Your task to perform on an android device: Empty the shopping cart on bestbuy. Add "asus rog" to the cart on bestbuy Image 0: 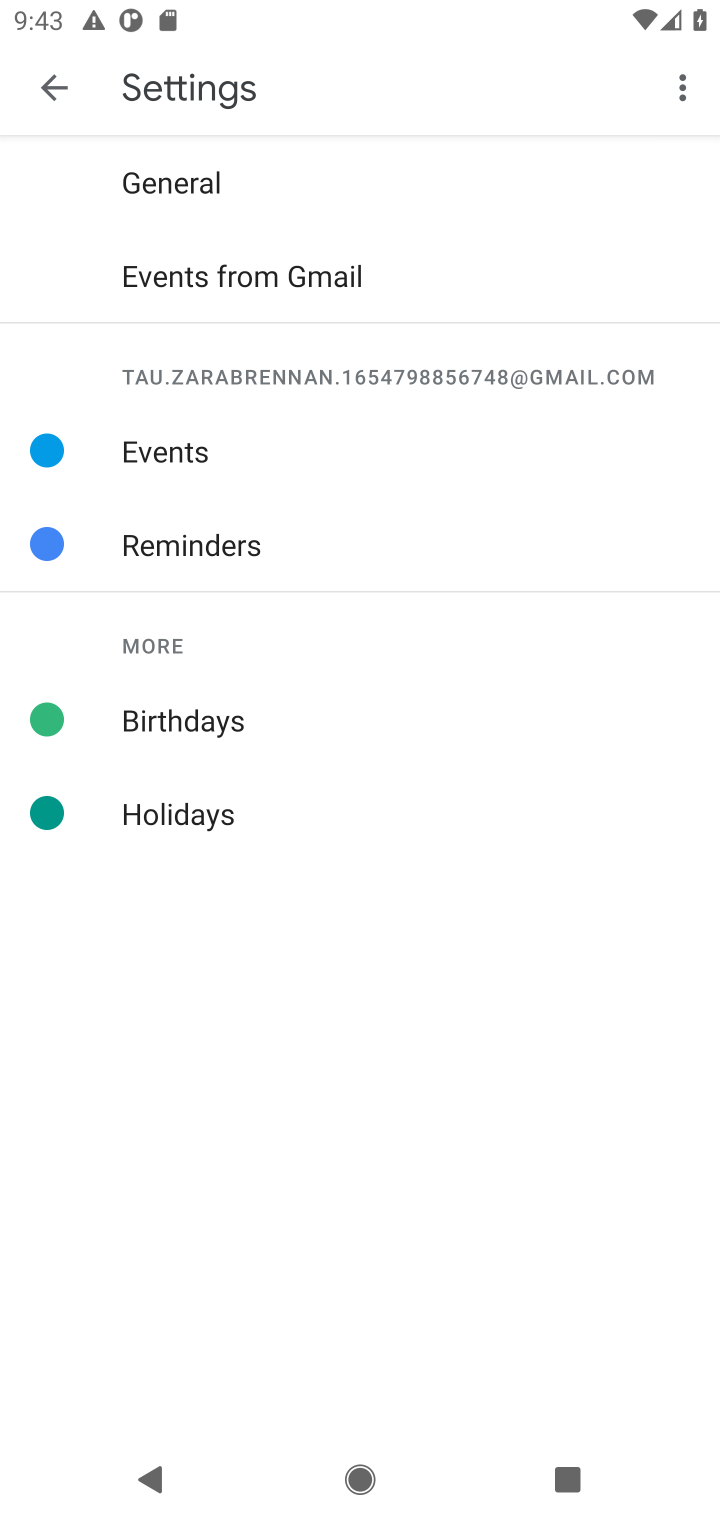
Step 0: press home button
Your task to perform on an android device: Empty the shopping cart on bestbuy. Add "asus rog" to the cart on bestbuy Image 1: 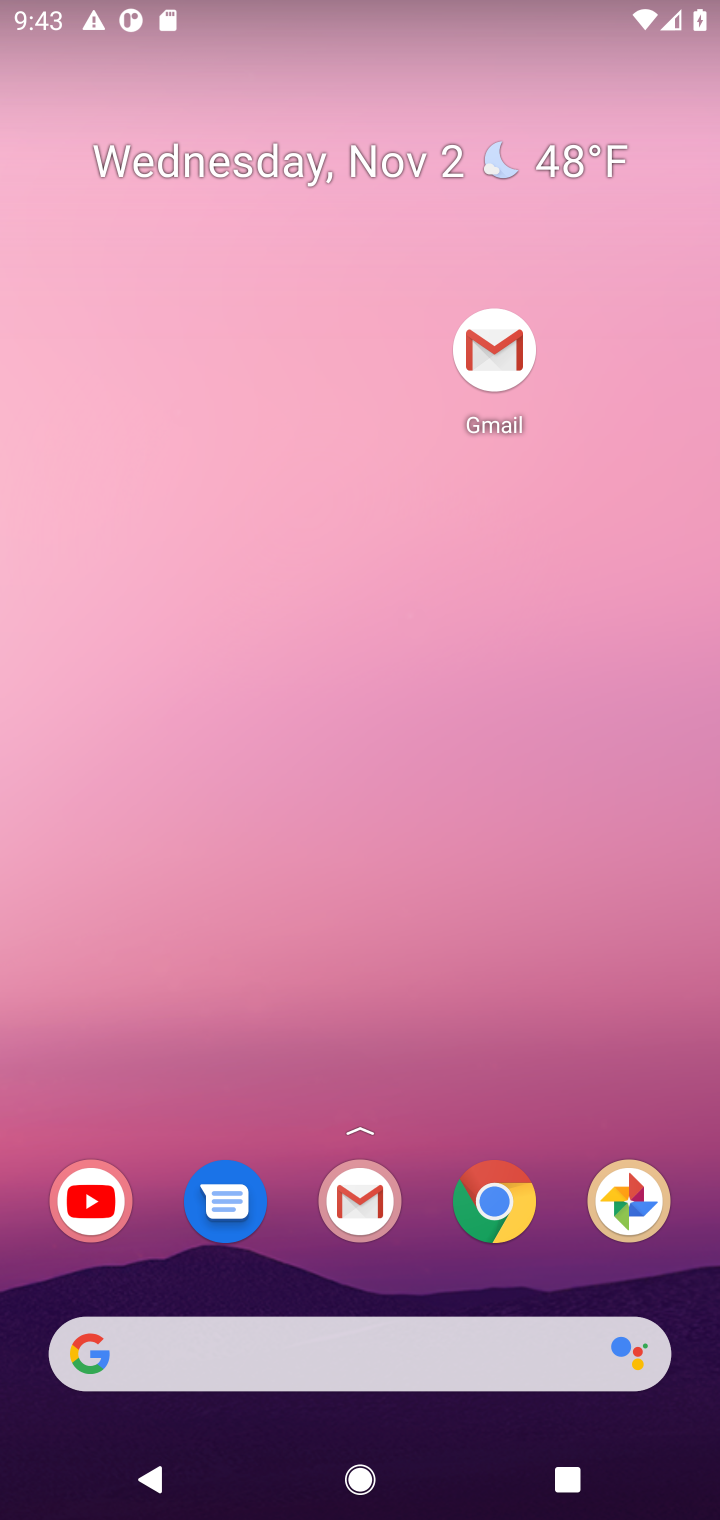
Step 1: drag from (419, 1290) to (256, 356)
Your task to perform on an android device: Empty the shopping cart on bestbuy. Add "asus rog" to the cart on bestbuy Image 2: 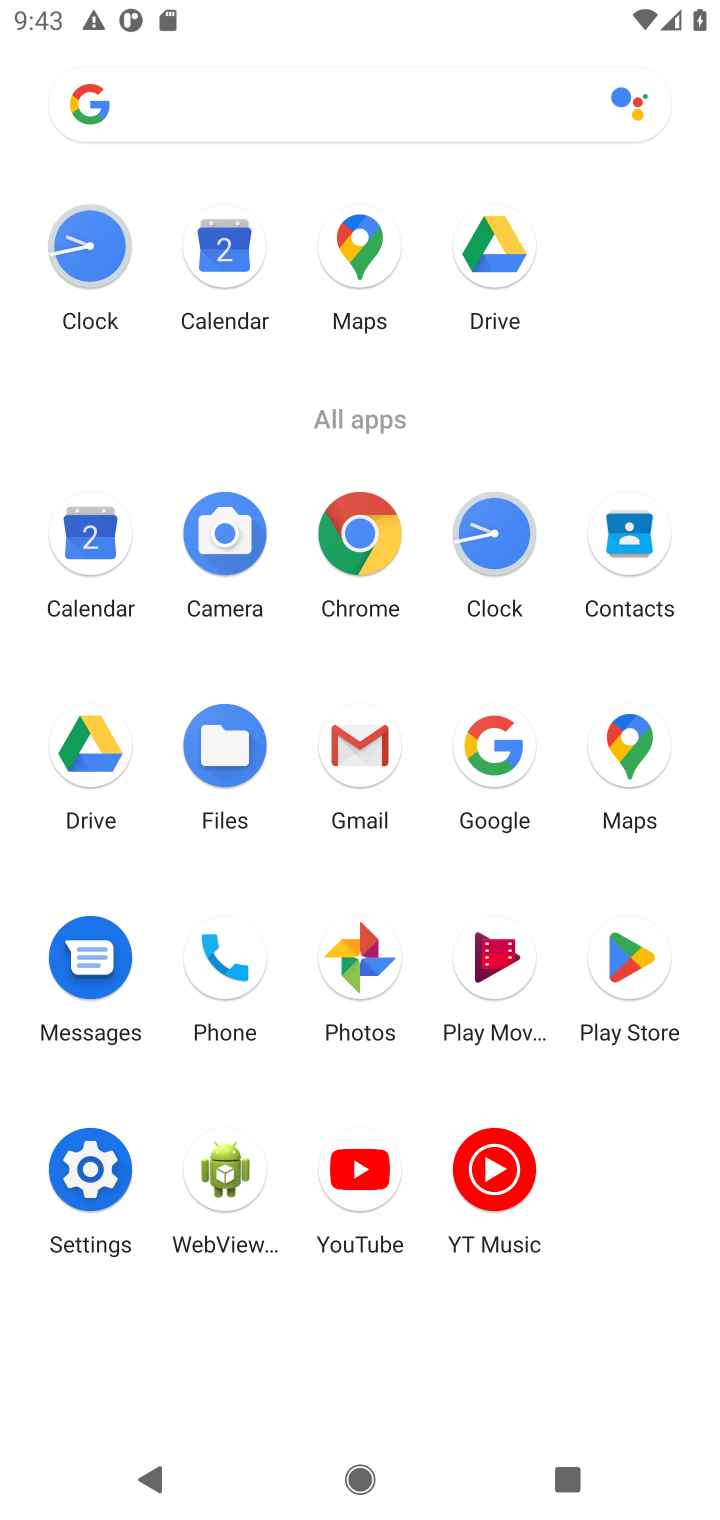
Step 2: click (366, 537)
Your task to perform on an android device: Empty the shopping cart on bestbuy. Add "asus rog" to the cart on bestbuy Image 3: 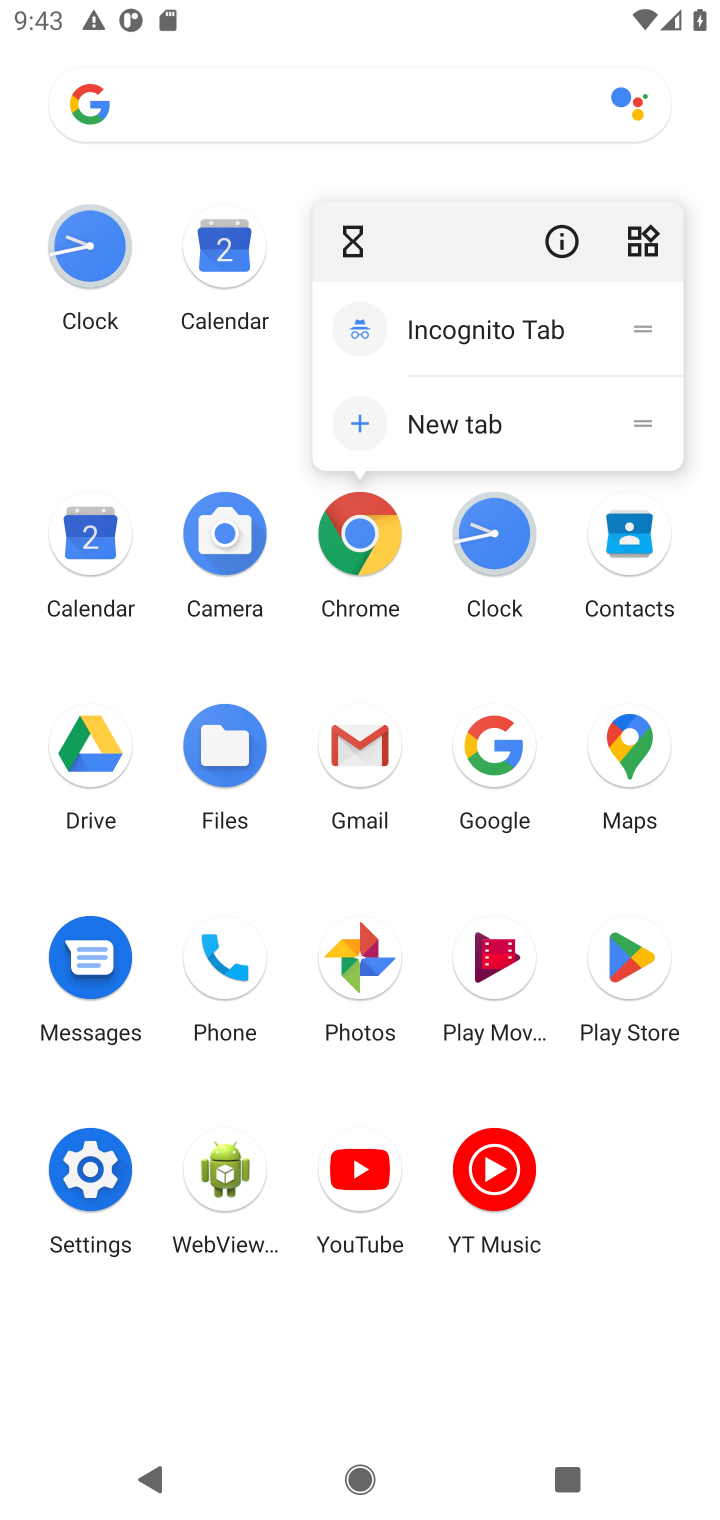
Step 3: click (350, 535)
Your task to perform on an android device: Empty the shopping cart on bestbuy. Add "asus rog" to the cart on bestbuy Image 4: 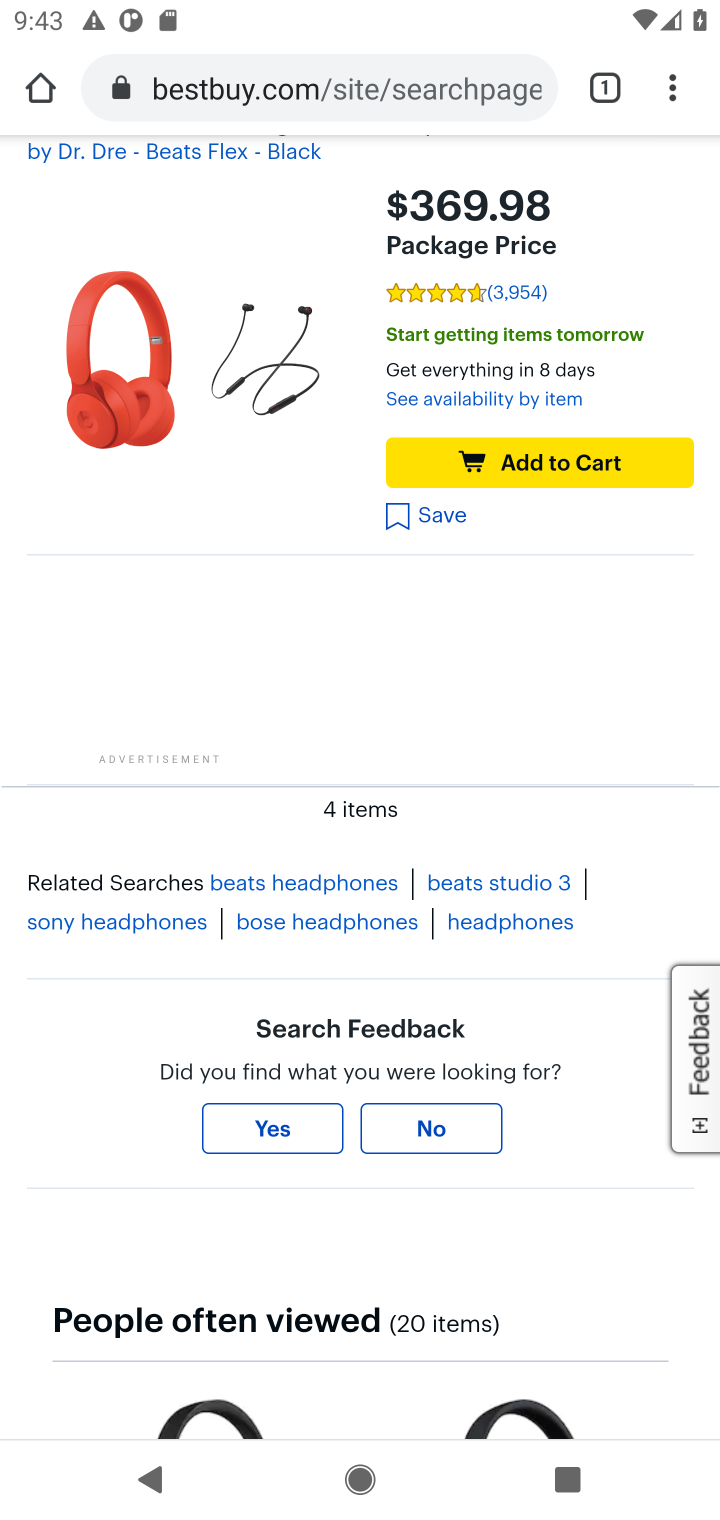
Step 4: click (355, 99)
Your task to perform on an android device: Empty the shopping cart on bestbuy. Add "asus rog" to the cart on bestbuy Image 5: 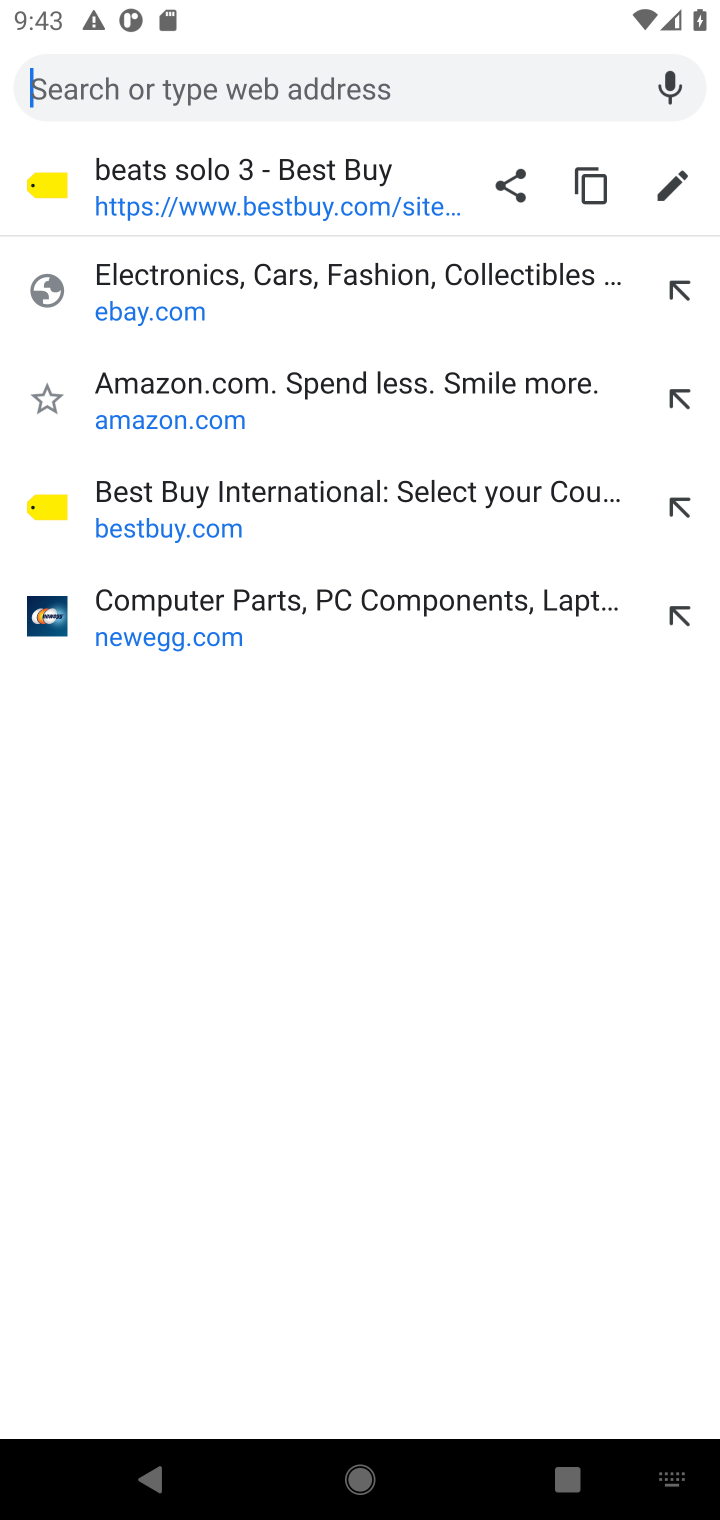
Step 5: type "bestbuy.com"
Your task to perform on an android device: Empty the shopping cart on bestbuy. Add "asus rog" to the cart on bestbuy Image 6: 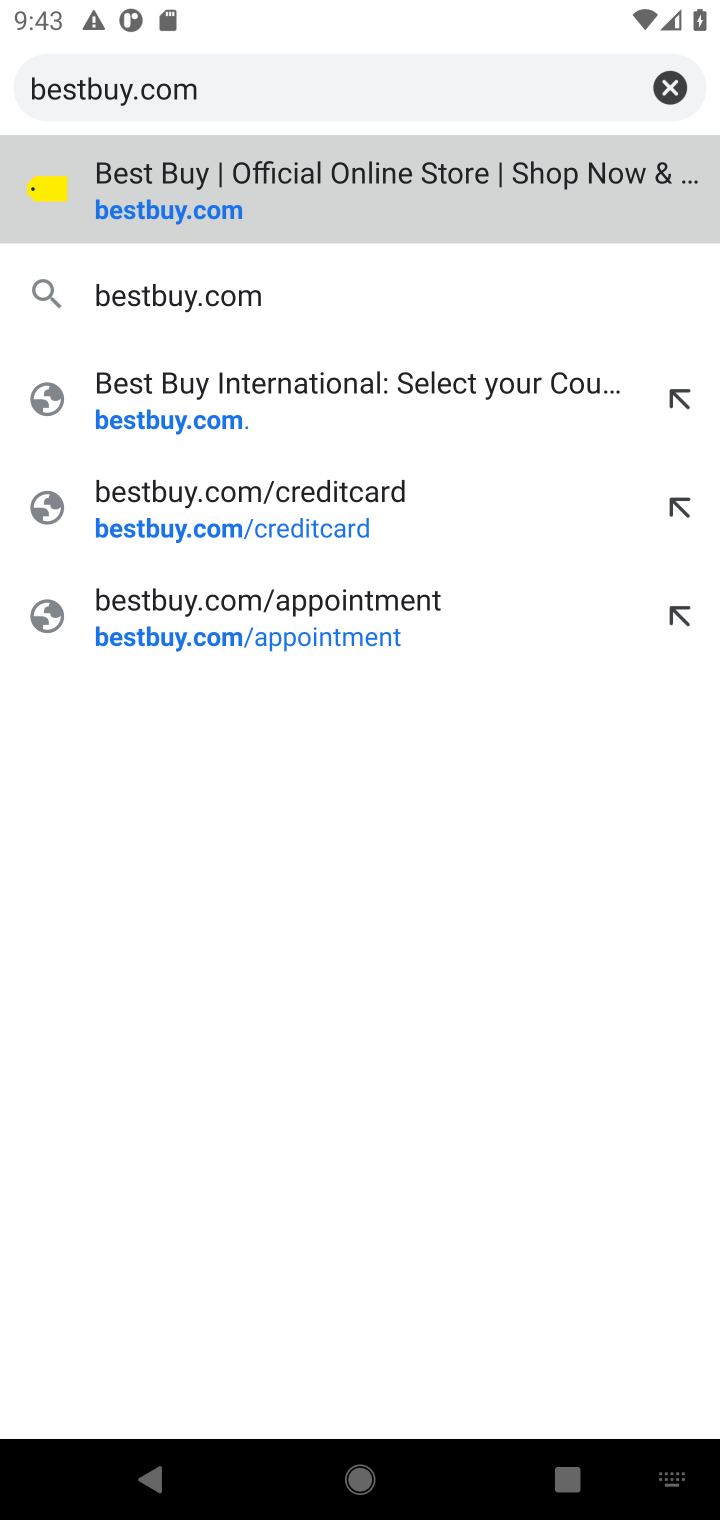
Step 6: press enter
Your task to perform on an android device: Empty the shopping cart on bestbuy. Add "asus rog" to the cart on bestbuy Image 7: 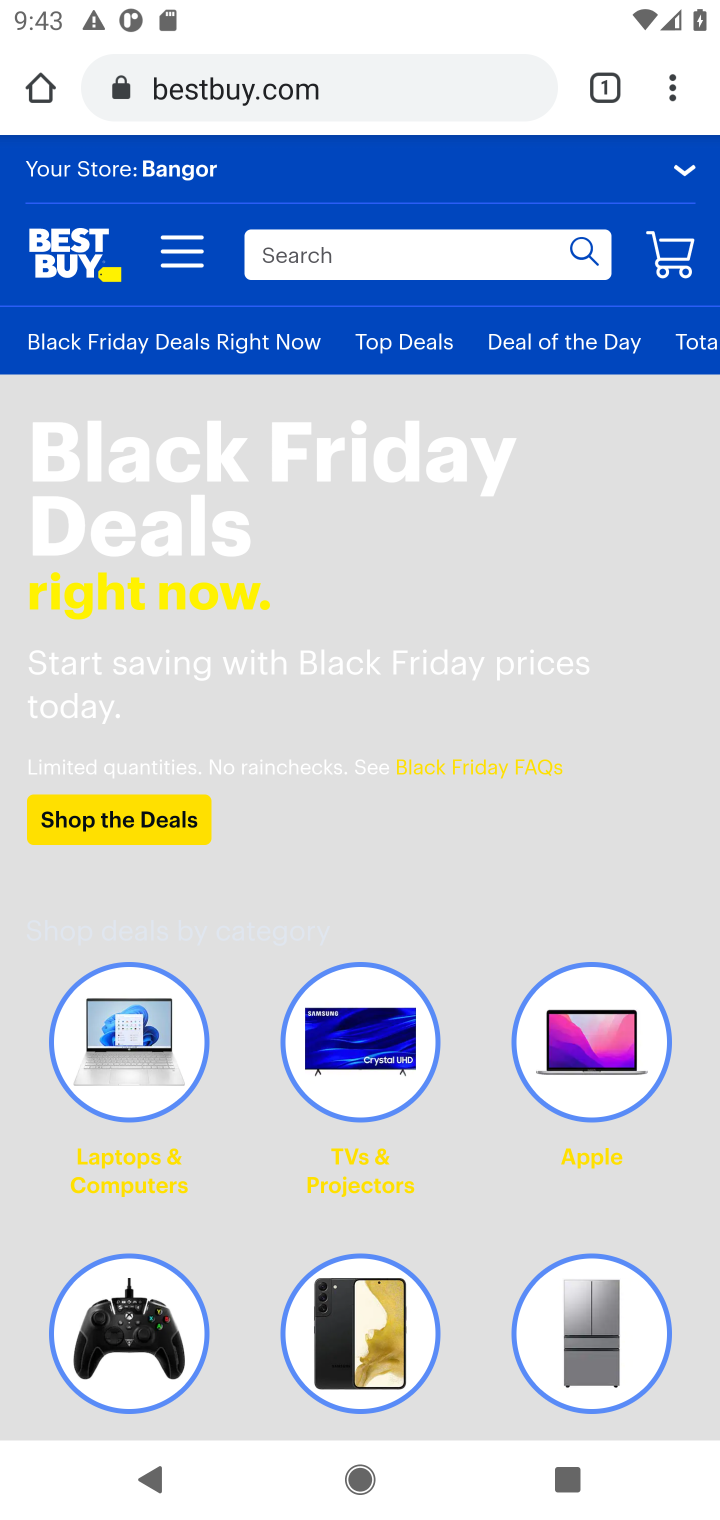
Step 7: click (678, 235)
Your task to perform on an android device: Empty the shopping cart on bestbuy. Add "asus rog" to the cart on bestbuy Image 8: 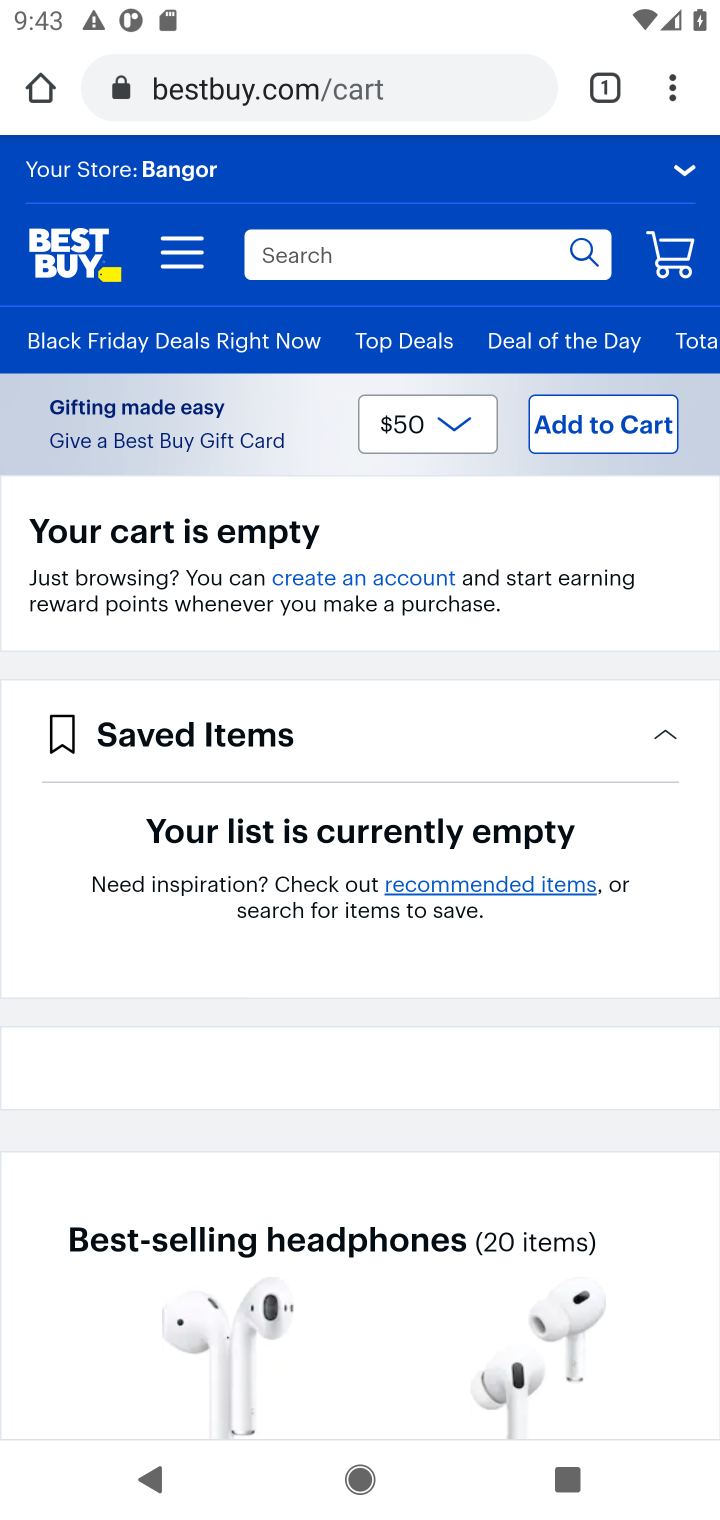
Step 8: click (474, 279)
Your task to perform on an android device: Empty the shopping cart on bestbuy. Add "asus rog" to the cart on bestbuy Image 9: 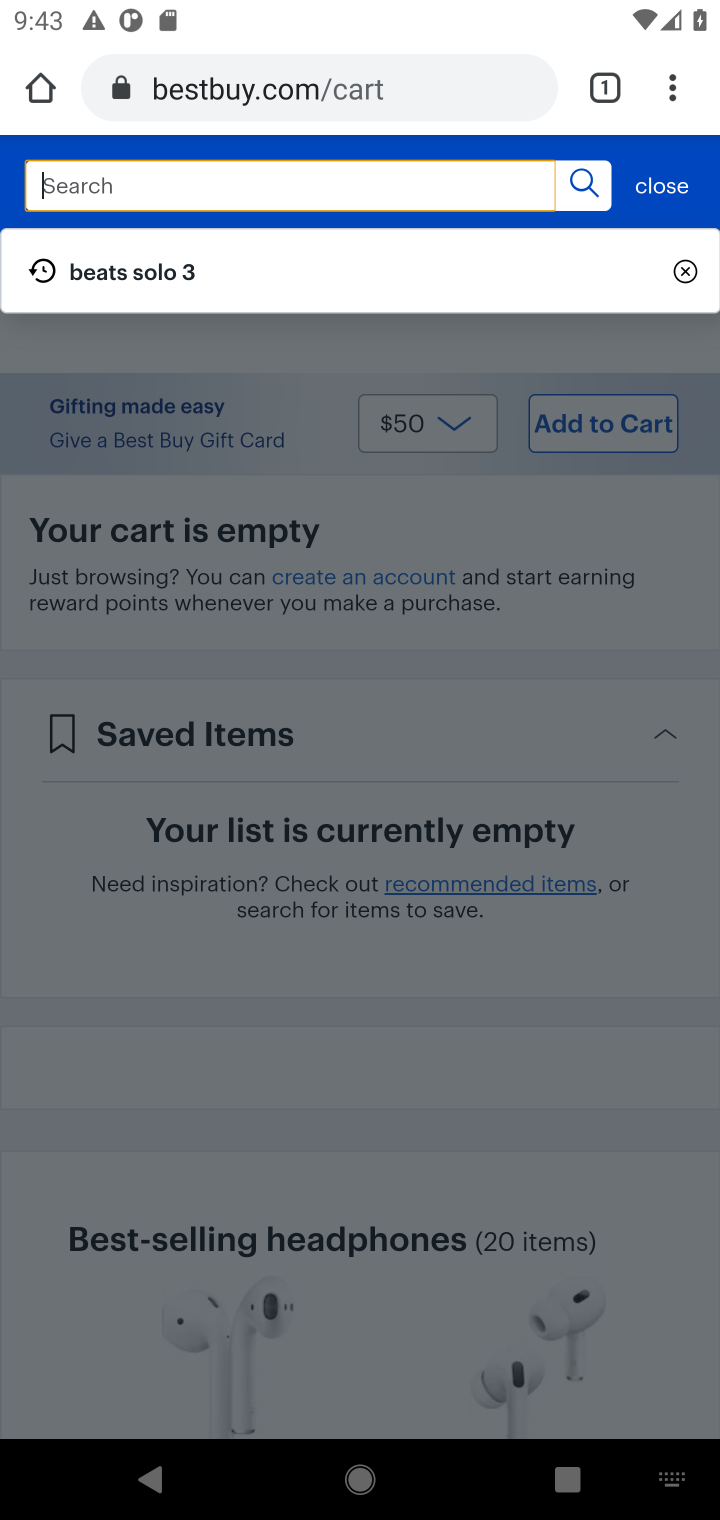
Step 9: type "asus rog"
Your task to perform on an android device: Empty the shopping cart on bestbuy. Add "asus rog" to the cart on bestbuy Image 10: 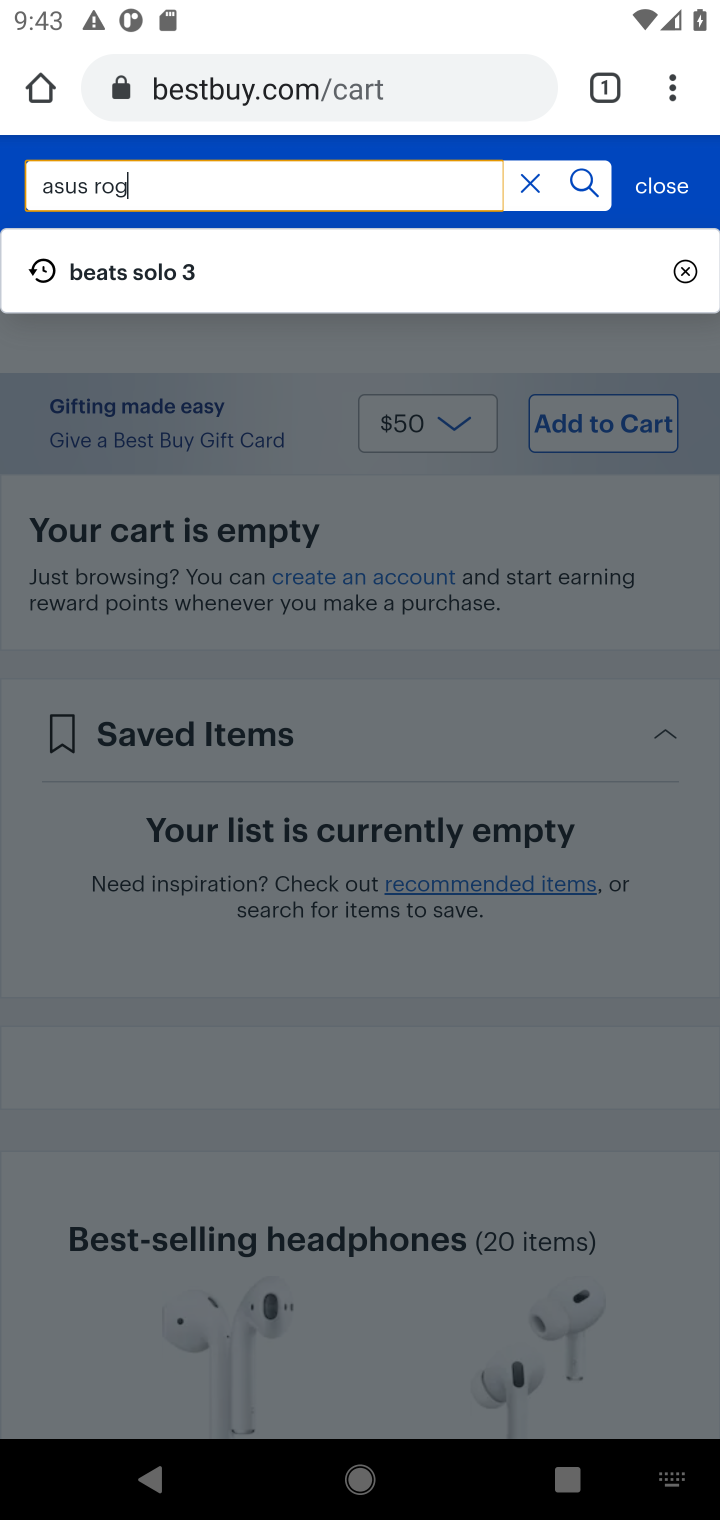
Step 10: press enter
Your task to perform on an android device: Empty the shopping cart on bestbuy. Add "asus rog" to the cart on bestbuy Image 11: 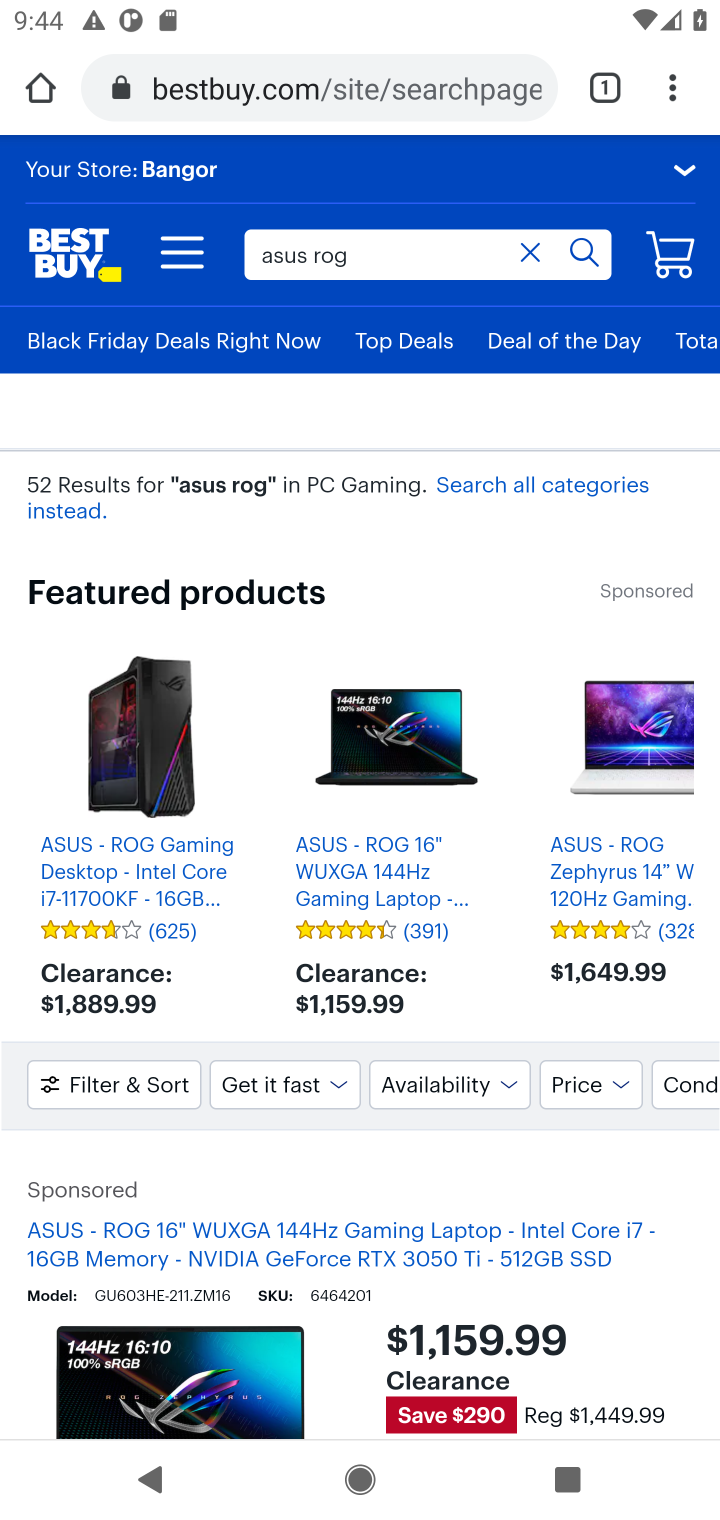
Step 11: drag from (441, 1270) to (523, 222)
Your task to perform on an android device: Empty the shopping cart on bestbuy. Add "asus rog" to the cart on bestbuy Image 12: 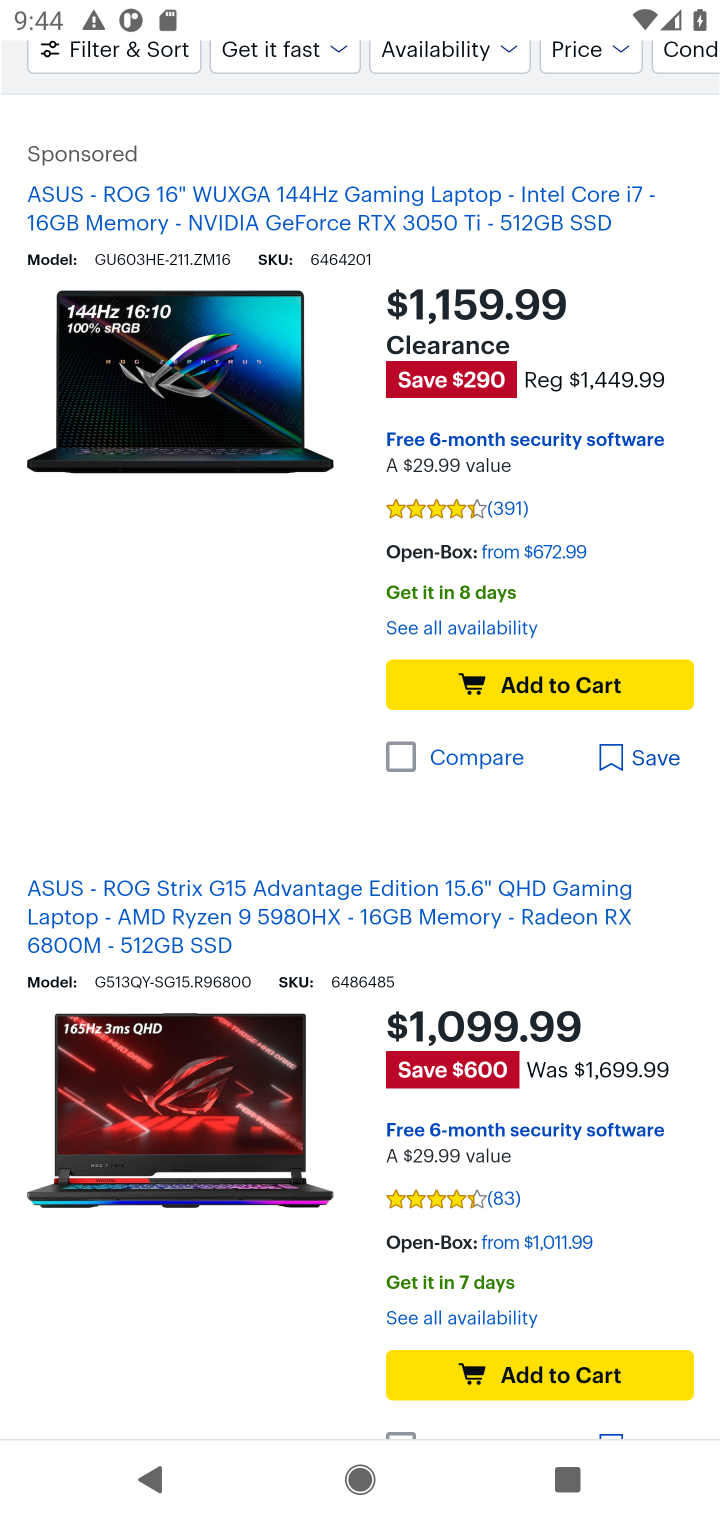
Step 12: click (177, 936)
Your task to perform on an android device: Empty the shopping cart on bestbuy. Add "asus rog" to the cart on bestbuy Image 13: 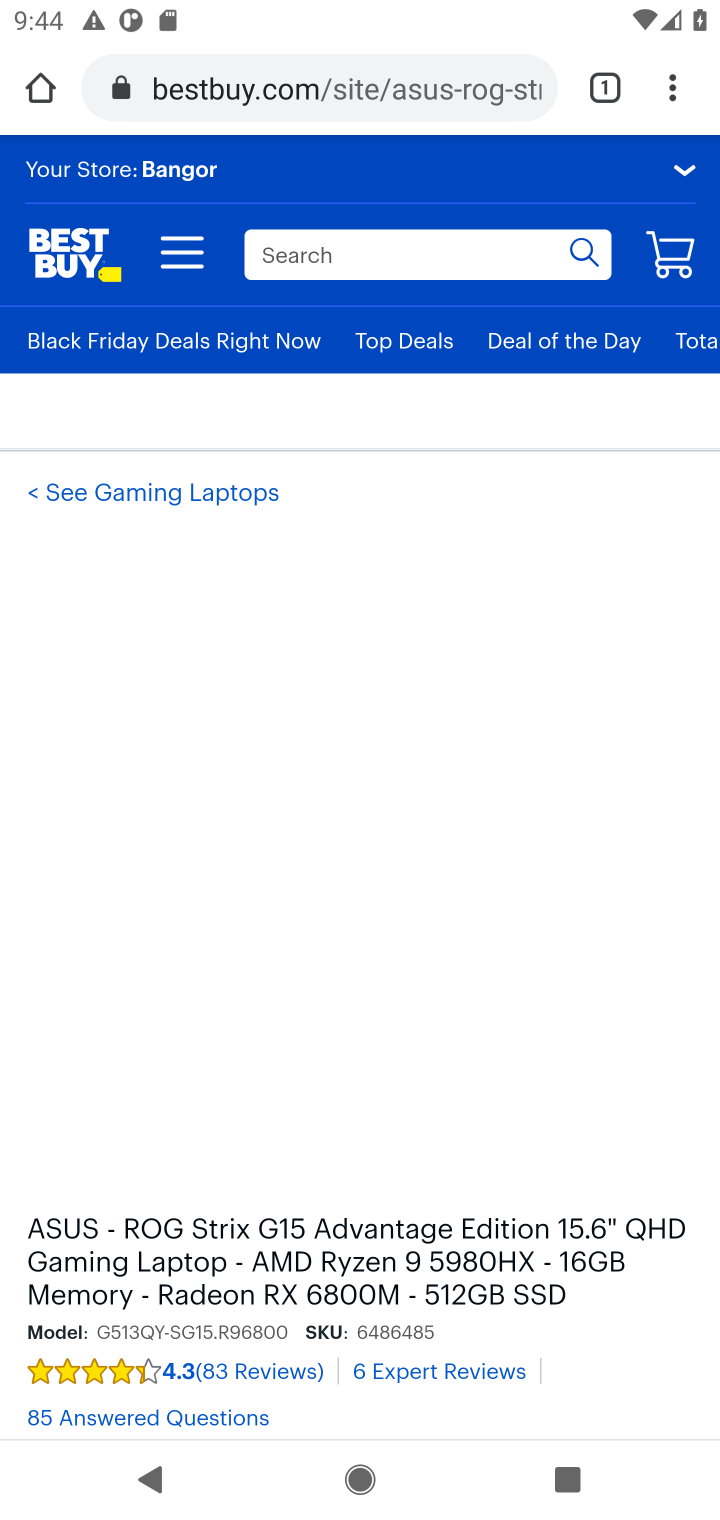
Step 13: drag from (412, 1222) to (513, 368)
Your task to perform on an android device: Empty the shopping cart on bestbuy. Add "asus rog" to the cart on bestbuy Image 14: 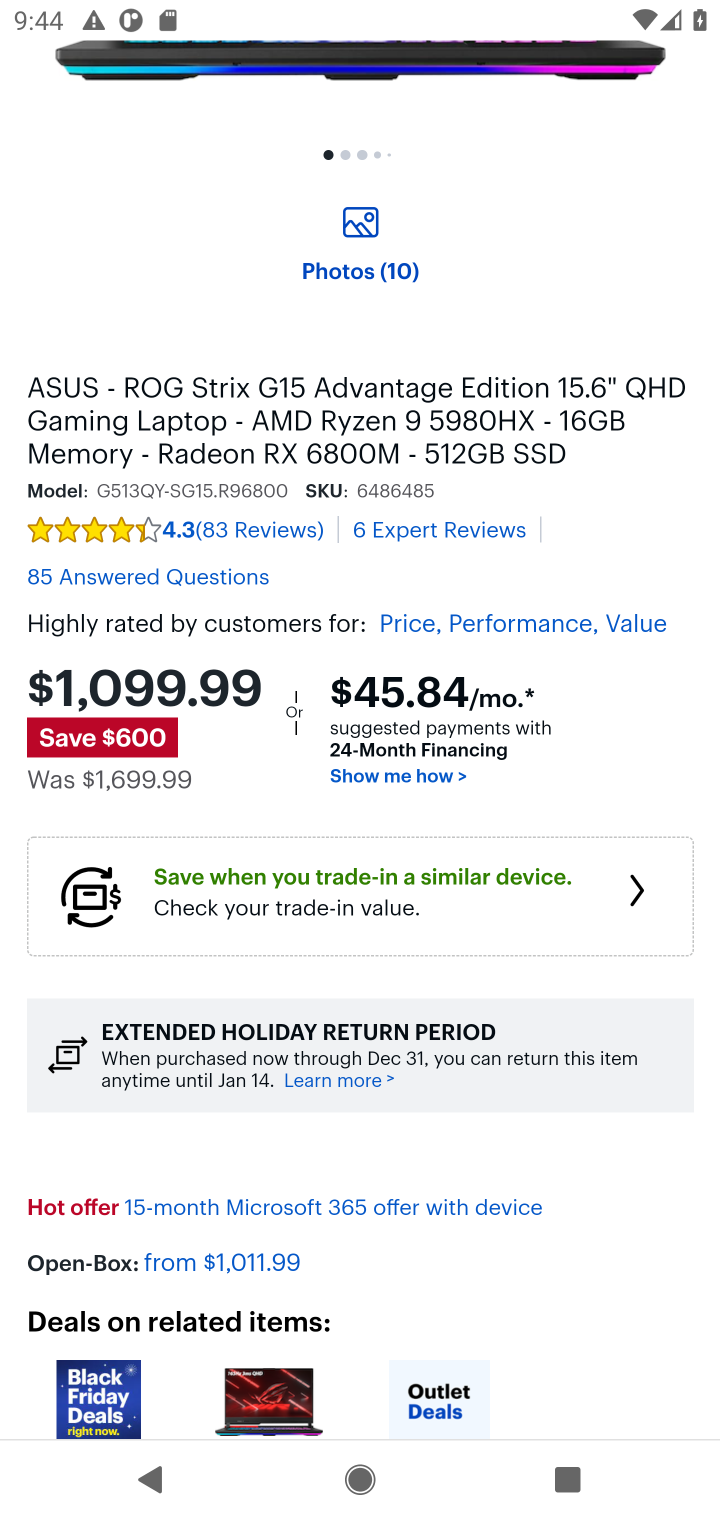
Step 14: drag from (366, 1170) to (445, 298)
Your task to perform on an android device: Empty the shopping cart on bestbuy. Add "asus rog" to the cart on bestbuy Image 15: 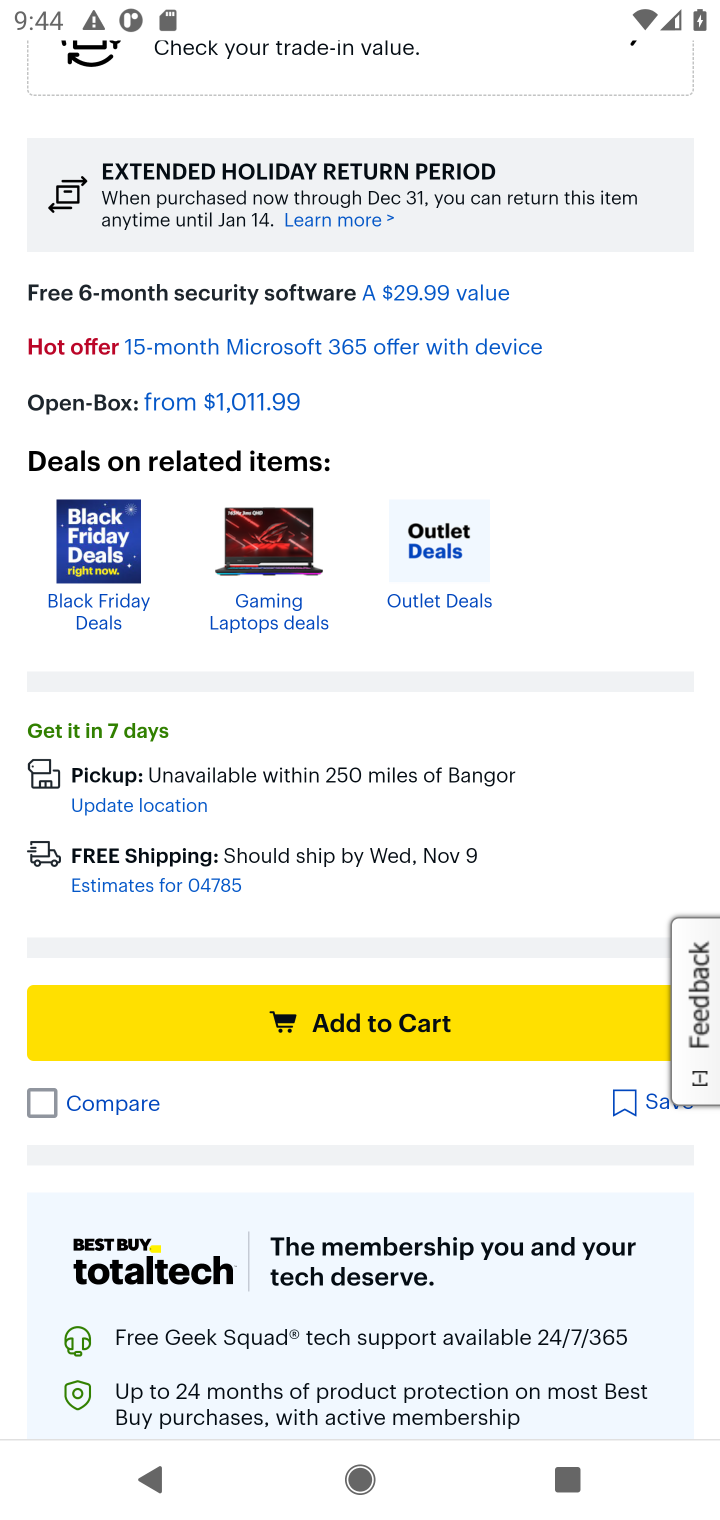
Step 15: click (449, 1016)
Your task to perform on an android device: Empty the shopping cart on bestbuy. Add "asus rog" to the cart on bestbuy Image 16: 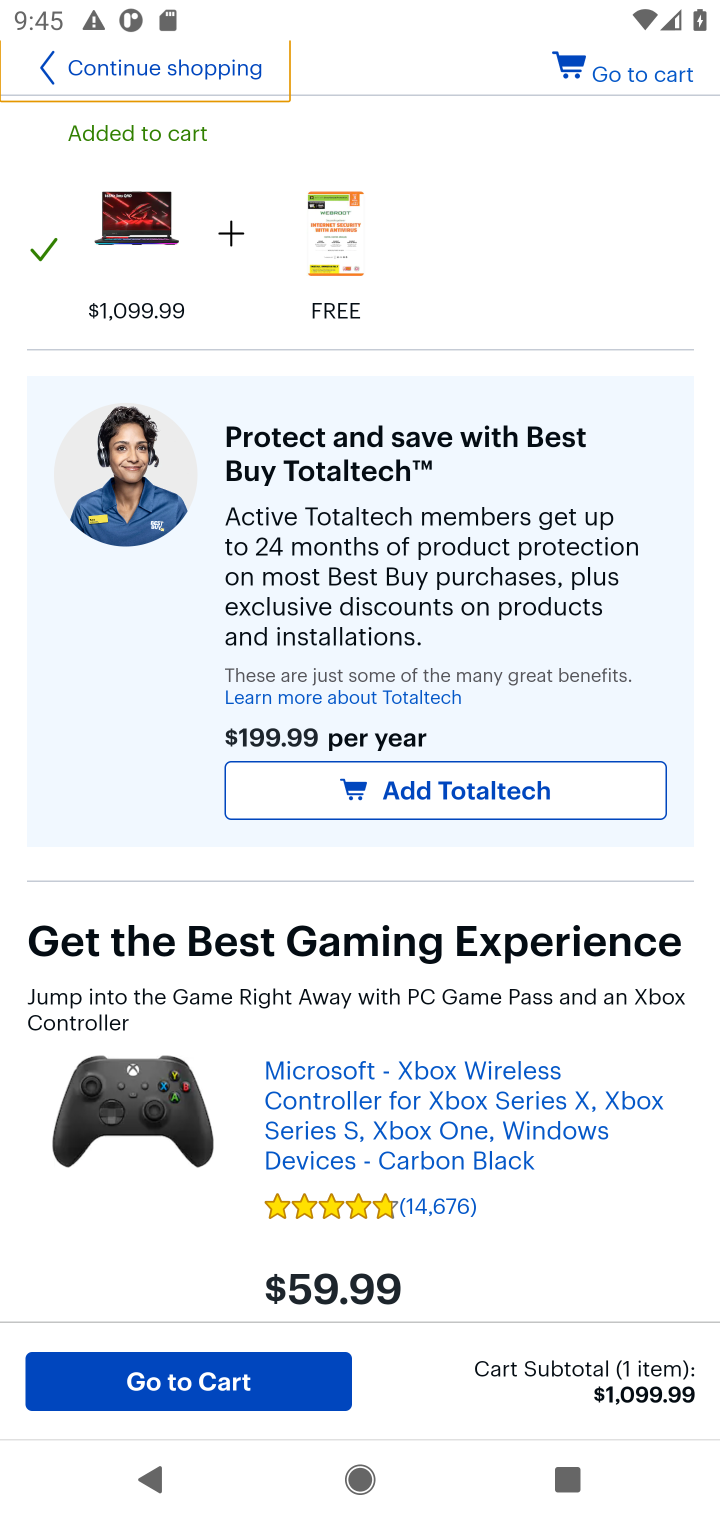
Step 16: task complete